Your task to perform on an android device: Open location settings Image 0: 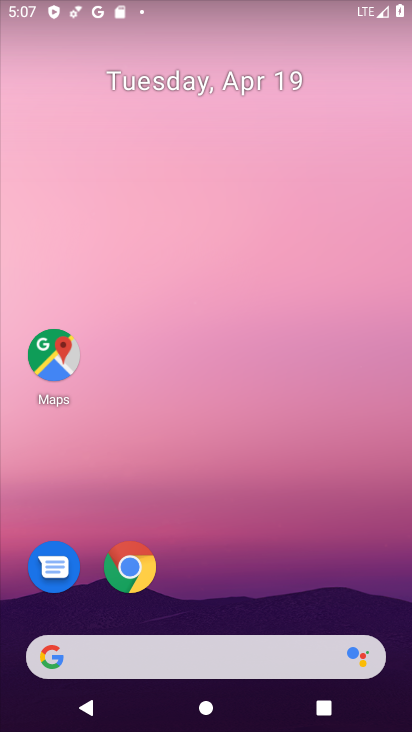
Step 0: drag from (297, 643) to (298, 145)
Your task to perform on an android device: Open location settings Image 1: 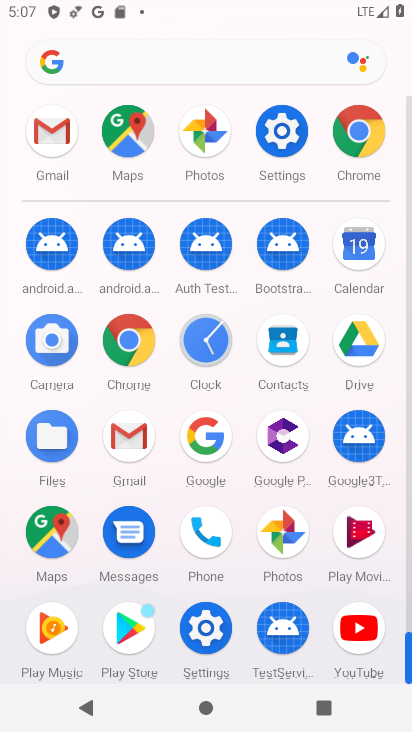
Step 1: click (214, 633)
Your task to perform on an android device: Open location settings Image 2: 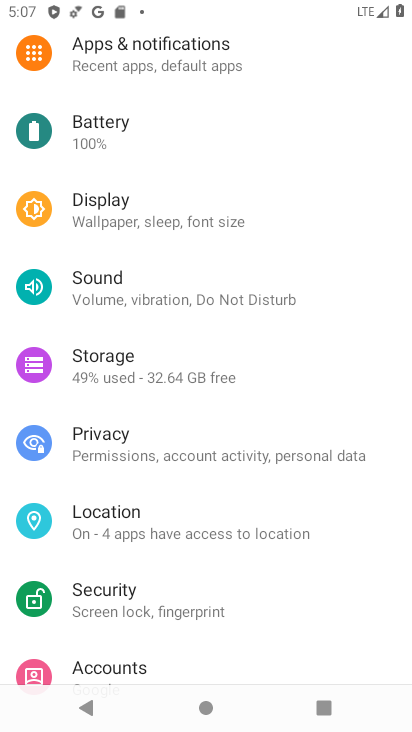
Step 2: click (171, 525)
Your task to perform on an android device: Open location settings Image 3: 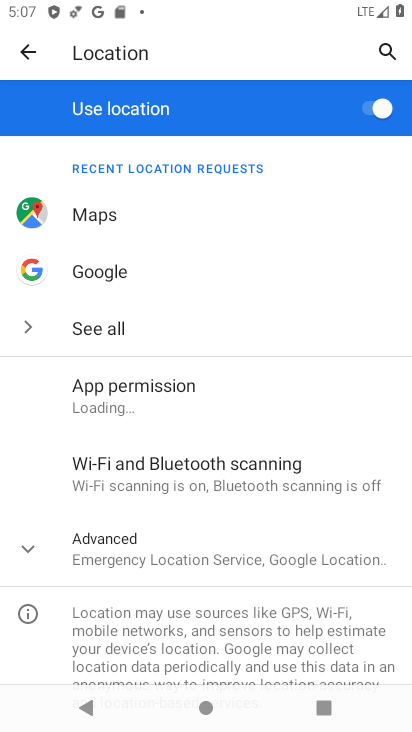
Step 3: task complete